Your task to perform on an android device: check google app version Image 0: 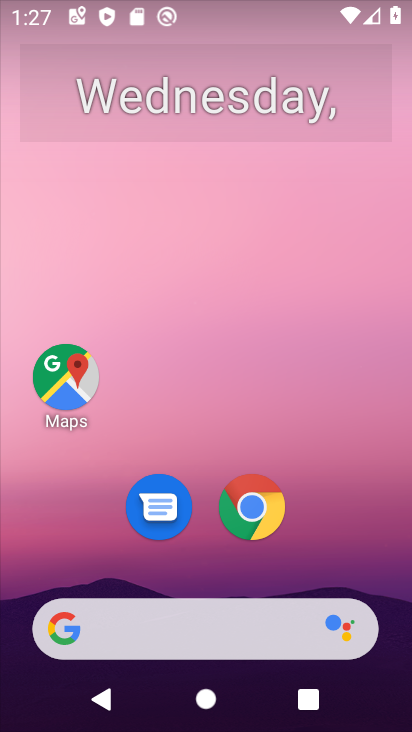
Step 0: drag from (324, 544) to (311, 241)
Your task to perform on an android device: check google app version Image 1: 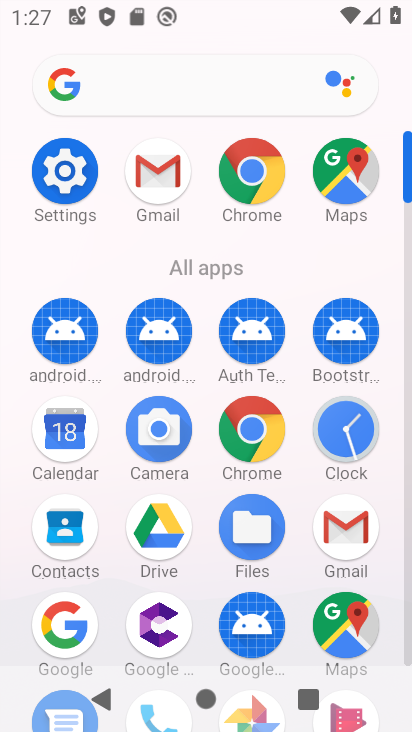
Step 1: click (53, 648)
Your task to perform on an android device: check google app version Image 2: 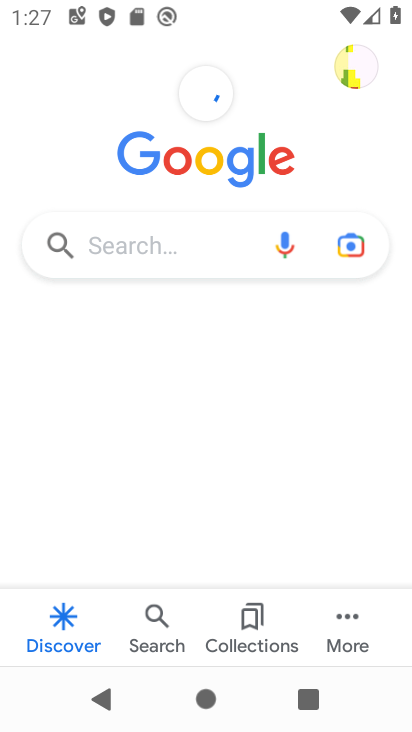
Step 2: click (384, 630)
Your task to perform on an android device: check google app version Image 3: 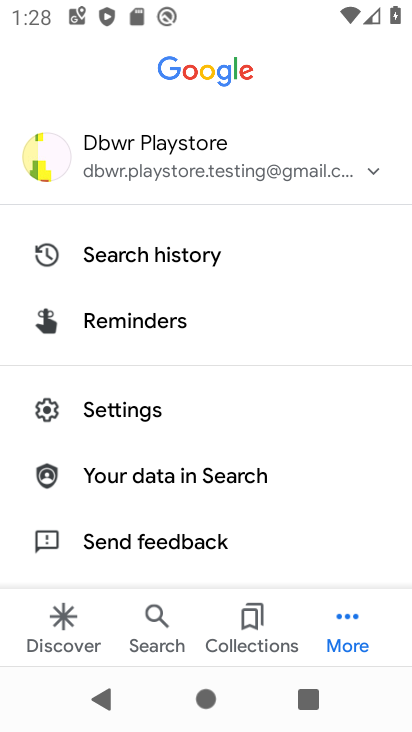
Step 3: click (136, 401)
Your task to perform on an android device: check google app version Image 4: 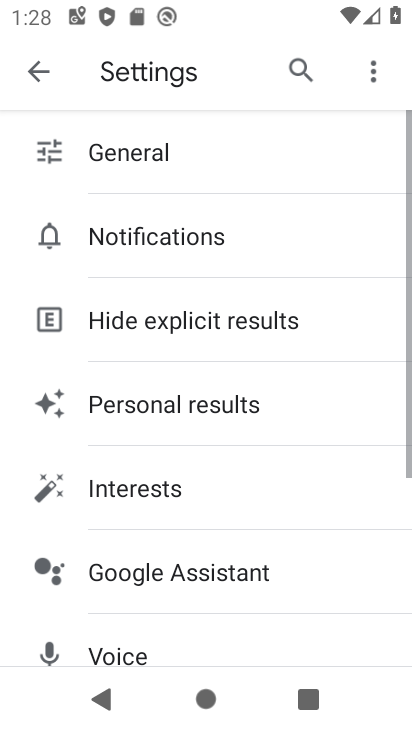
Step 4: drag from (157, 664) to (199, 274)
Your task to perform on an android device: check google app version Image 5: 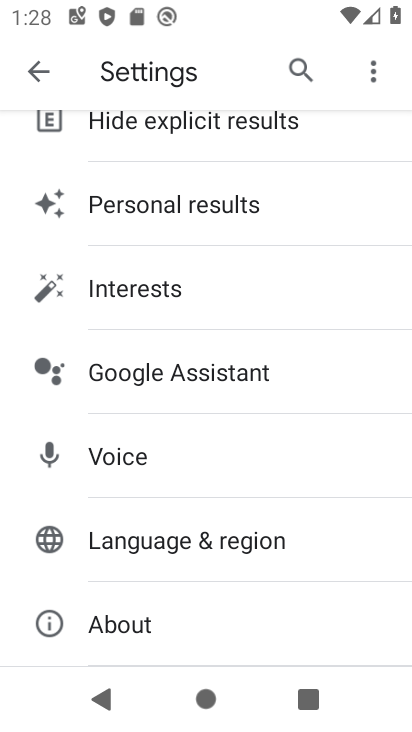
Step 5: drag from (284, 604) to (298, 311)
Your task to perform on an android device: check google app version Image 6: 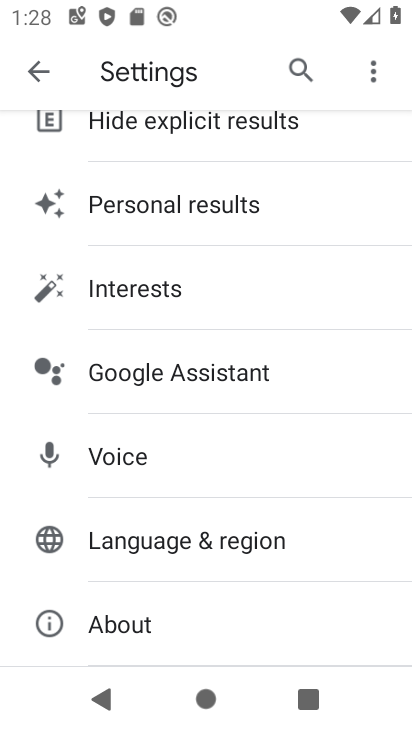
Step 6: click (182, 627)
Your task to perform on an android device: check google app version Image 7: 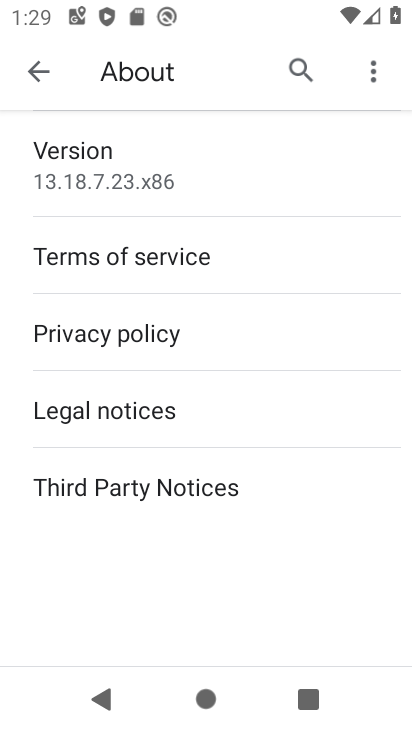
Step 7: click (113, 164)
Your task to perform on an android device: check google app version Image 8: 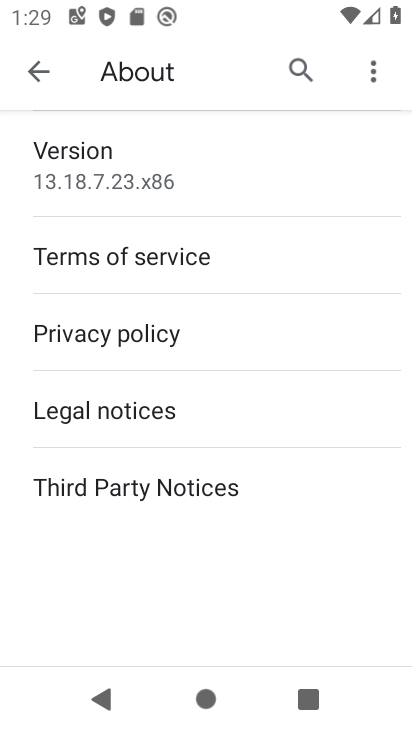
Step 8: task complete